Your task to perform on an android device: Open calendar and show me the first week of next month Image 0: 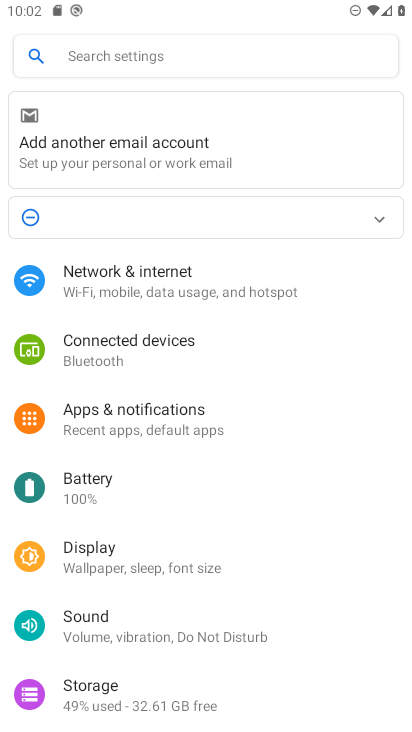
Step 0: press home button
Your task to perform on an android device: Open calendar and show me the first week of next month Image 1: 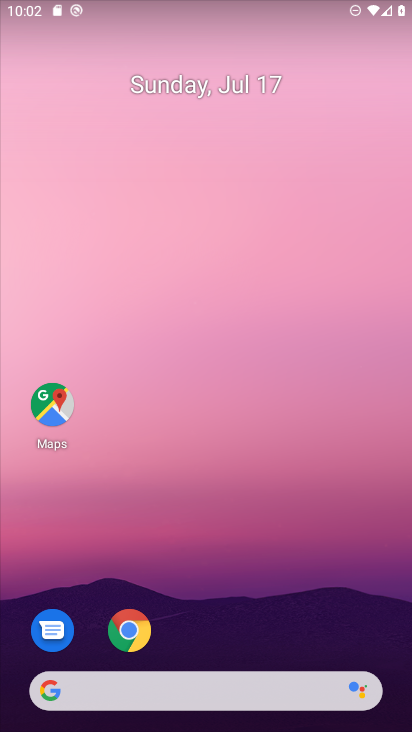
Step 1: drag from (311, 625) to (242, 156)
Your task to perform on an android device: Open calendar and show me the first week of next month Image 2: 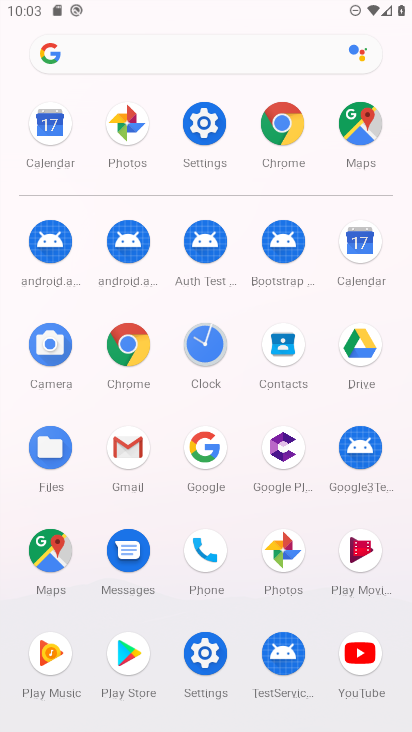
Step 2: click (375, 241)
Your task to perform on an android device: Open calendar and show me the first week of next month Image 3: 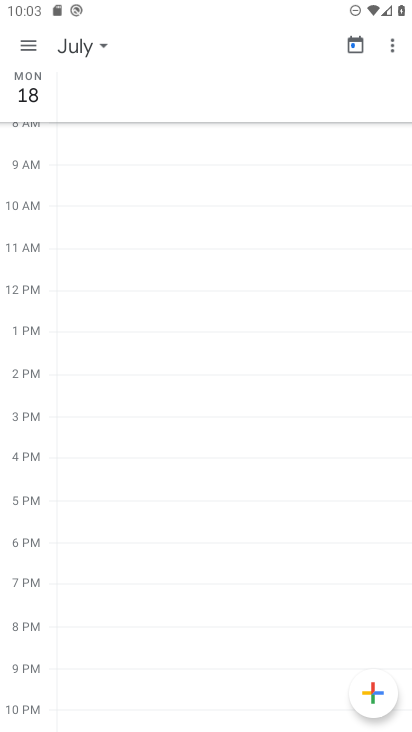
Step 3: click (24, 46)
Your task to perform on an android device: Open calendar and show me the first week of next month Image 4: 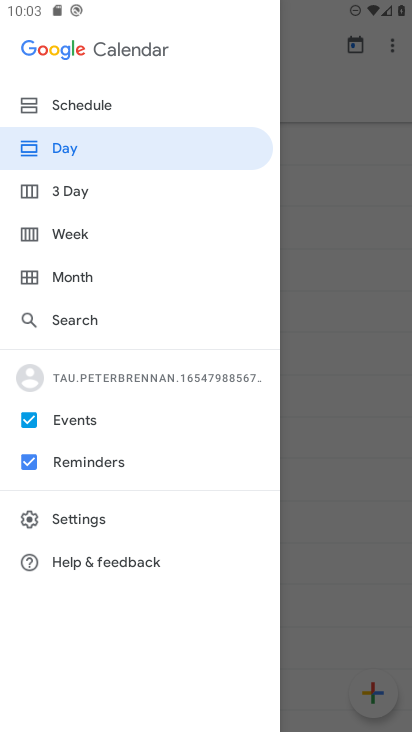
Step 4: drag from (96, 511) to (128, 276)
Your task to perform on an android device: Open calendar and show me the first week of next month Image 5: 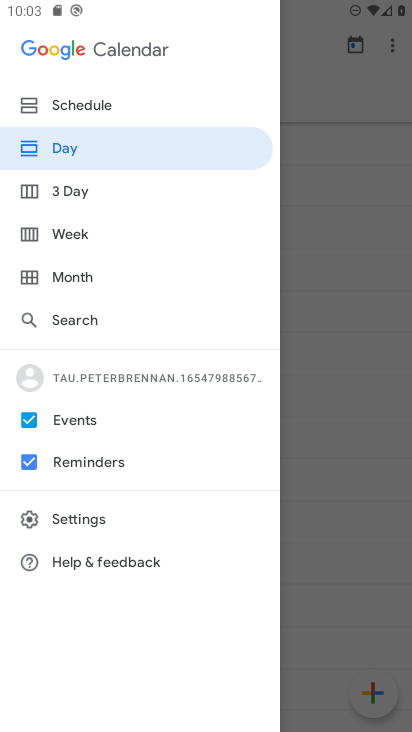
Step 5: click (111, 262)
Your task to perform on an android device: Open calendar and show me the first week of next month Image 6: 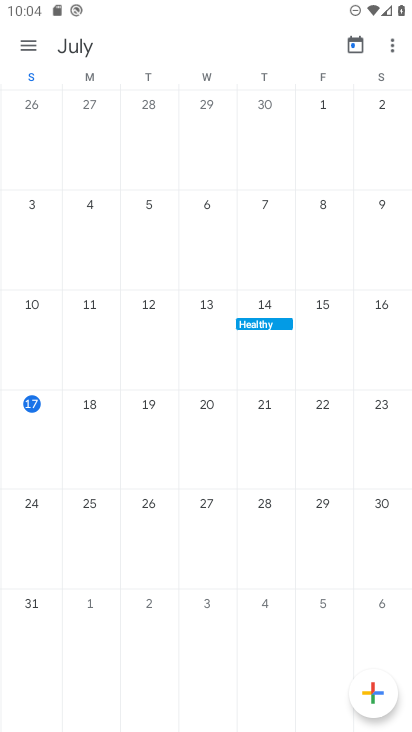
Step 6: task complete